Your task to perform on an android device: Open maps Image 0: 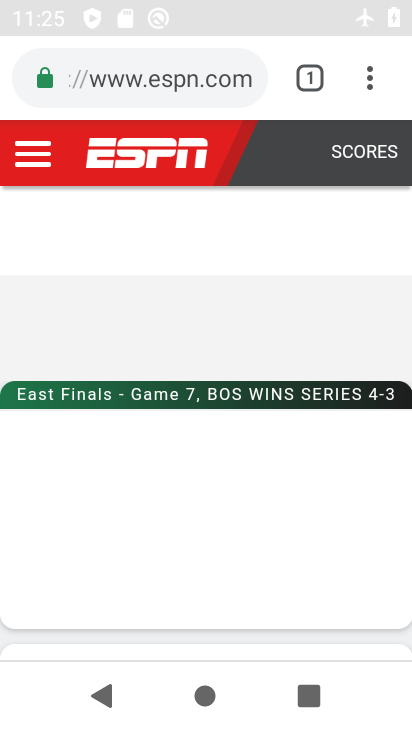
Step 0: click (70, 349)
Your task to perform on an android device: Open maps Image 1: 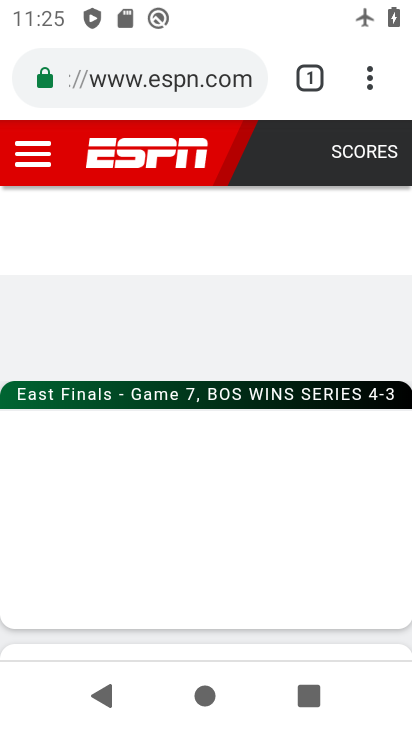
Step 1: press home button
Your task to perform on an android device: Open maps Image 2: 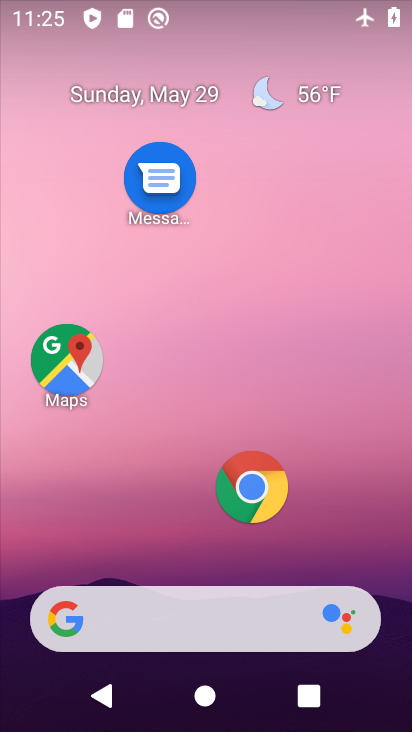
Step 2: click (67, 369)
Your task to perform on an android device: Open maps Image 3: 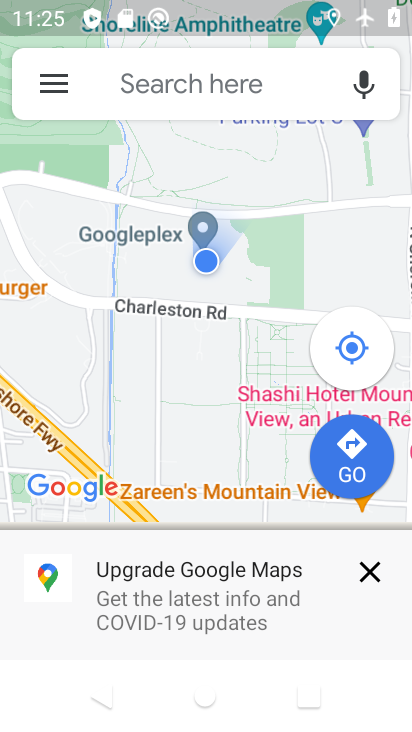
Step 3: task complete